Your task to perform on an android device: turn on location history Image 0: 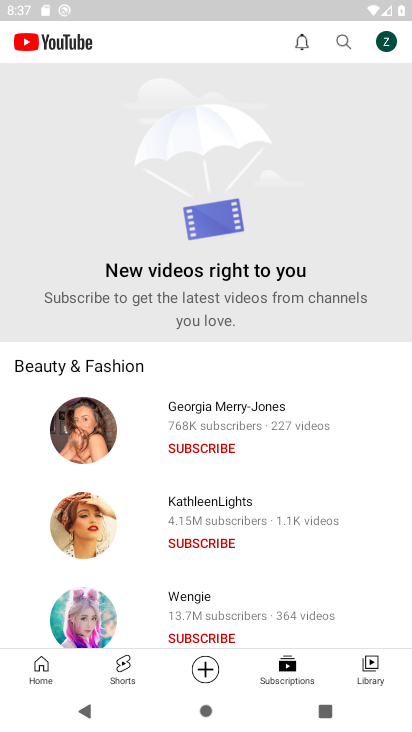
Step 0: press home button
Your task to perform on an android device: turn on location history Image 1: 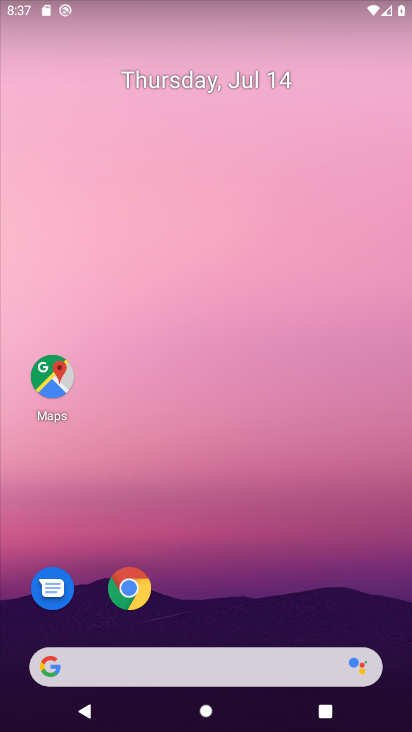
Step 1: drag from (343, 614) to (360, 137)
Your task to perform on an android device: turn on location history Image 2: 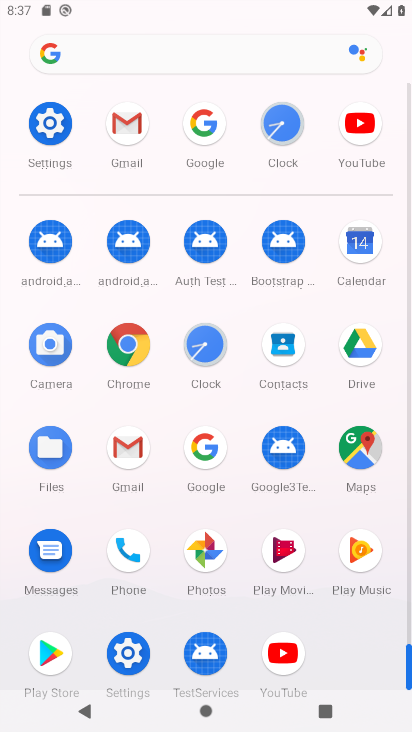
Step 2: click (58, 132)
Your task to perform on an android device: turn on location history Image 3: 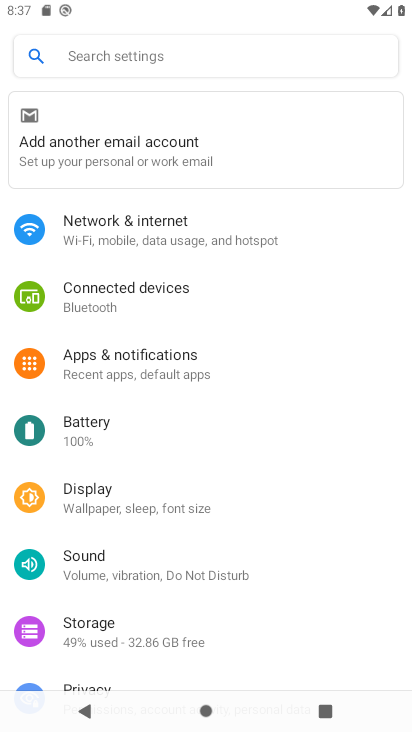
Step 3: drag from (361, 394) to (368, 324)
Your task to perform on an android device: turn on location history Image 4: 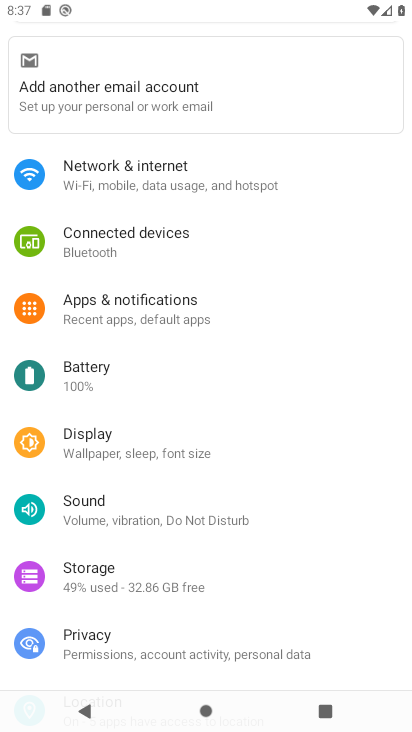
Step 4: drag from (367, 385) to (365, 298)
Your task to perform on an android device: turn on location history Image 5: 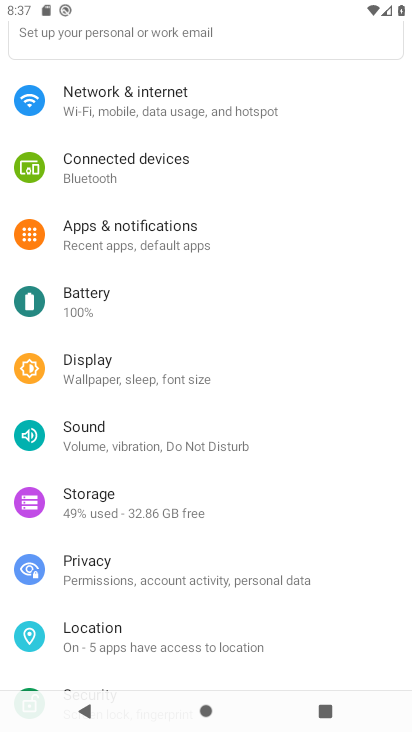
Step 5: drag from (365, 393) to (364, 330)
Your task to perform on an android device: turn on location history Image 6: 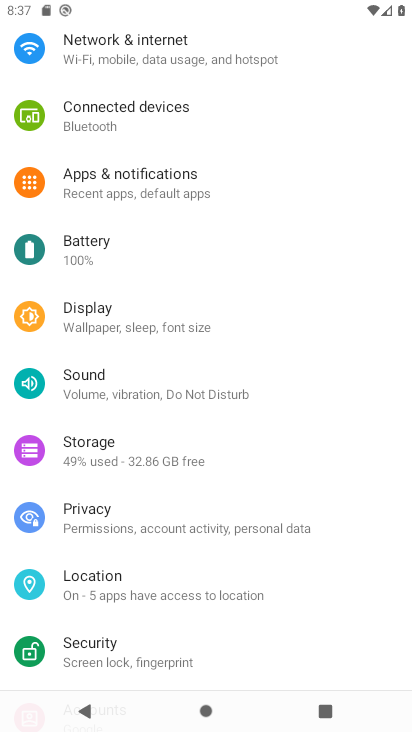
Step 6: drag from (368, 457) to (367, 335)
Your task to perform on an android device: turn on location history Image 7: 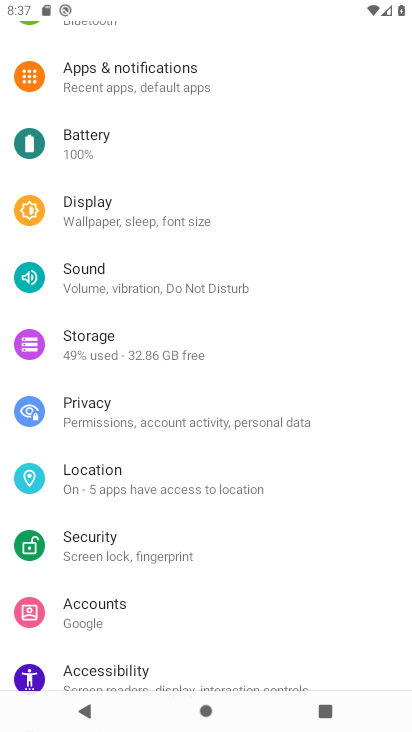
Step 7: drag from (363, 492) to (363, 359)
Your task to perform on an android device: turn on location history Image 8: 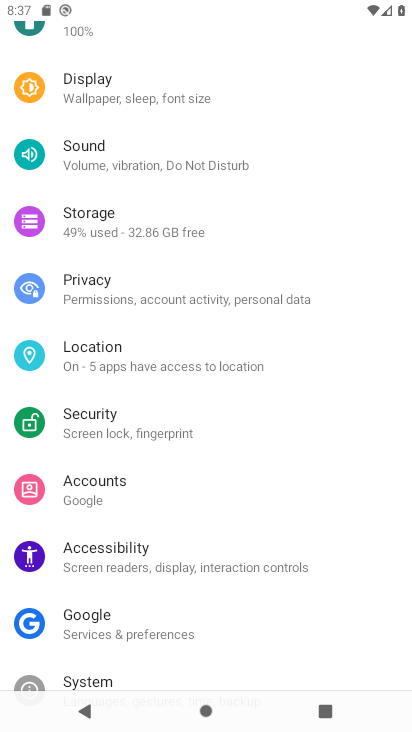
Step 8: click (293, 364)
Your task to perform on an android device: turn on location history Image 9: 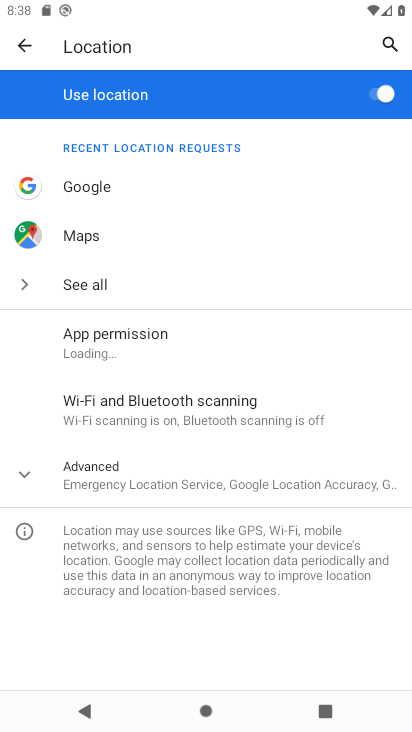
Step 9: click (303, 467)
Your task to perform on an android device: turn on location history Image 10: 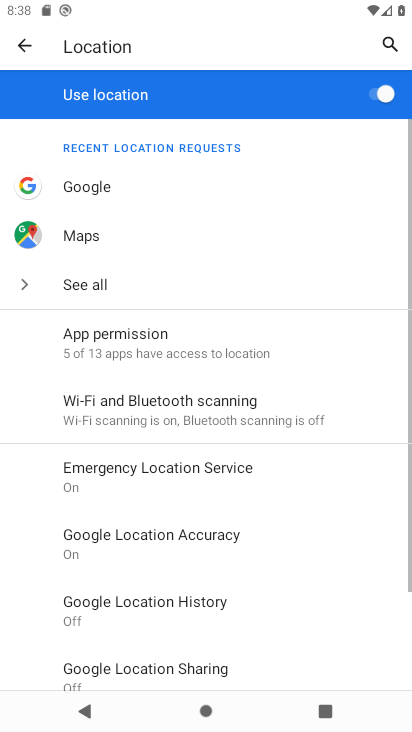
Step 10: click (323, 470)
Your task to perform on an android device: turn on location history Image 11: 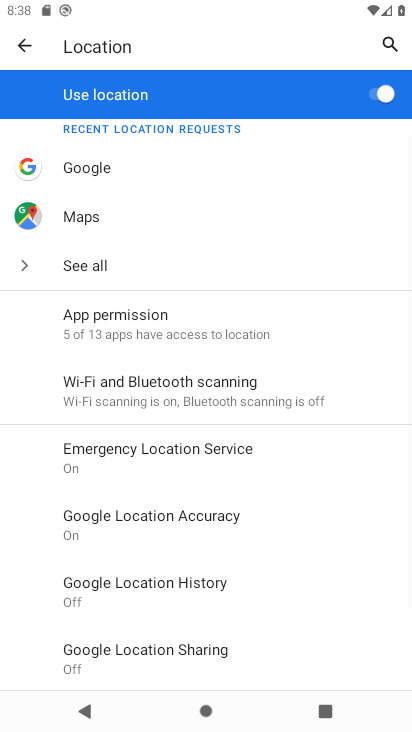
Step 11: drag from (336, 517) to (336, 428)
Your task to perform on an android device: turn on location history Image 12: 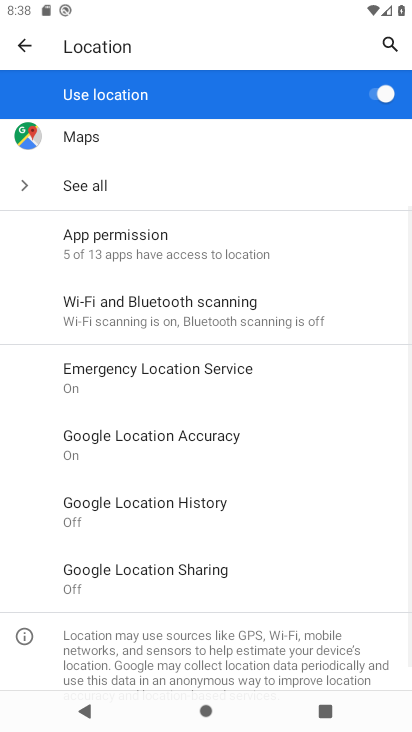
Step 12: drag from (335, 493) to (337, 409)
Your task to perform on an android device: turn on location history Image 13: 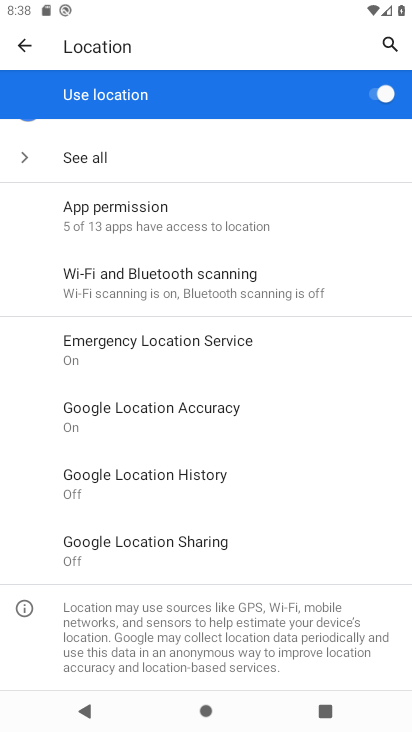
Step 13: click (284, 482)
Your task to perform on an android device: turn on location history Image 14: 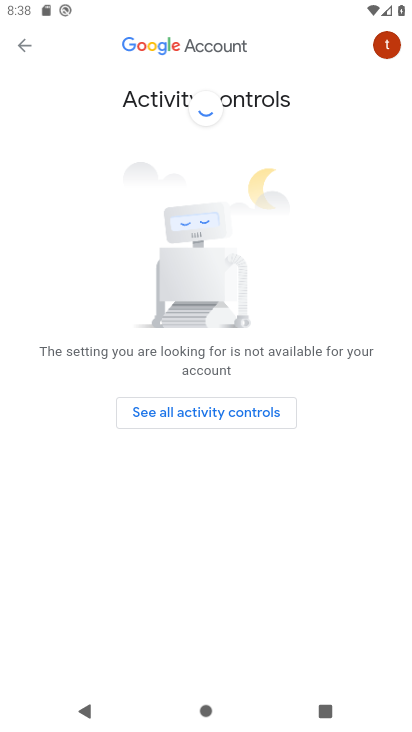
Step 14: click (243, 417)
Your task to perform on an android device: turn on location history Image 15: 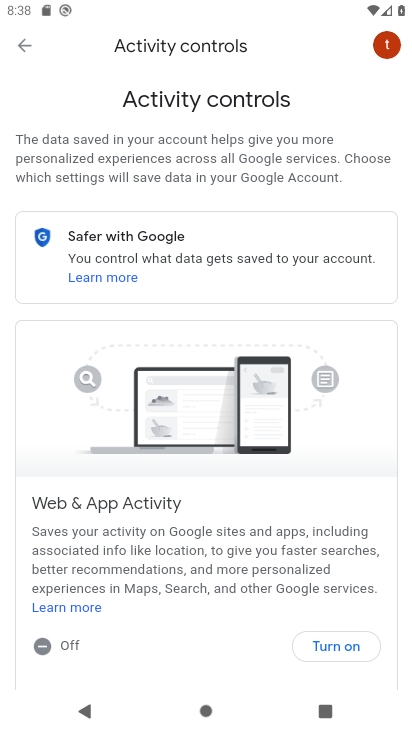
Step 15: click (348, 637)
Your task to perform on an android device: turn on location history Image 16: 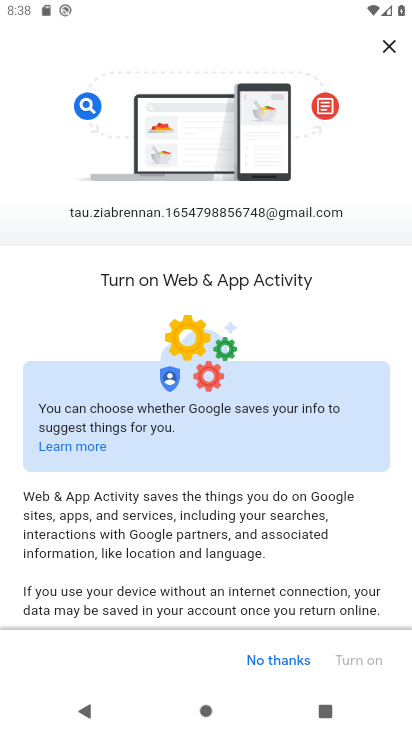
Step 16: drag from (340, 597) to (337, 448)
Your task to perform on an android device: turn on location history Image 17: 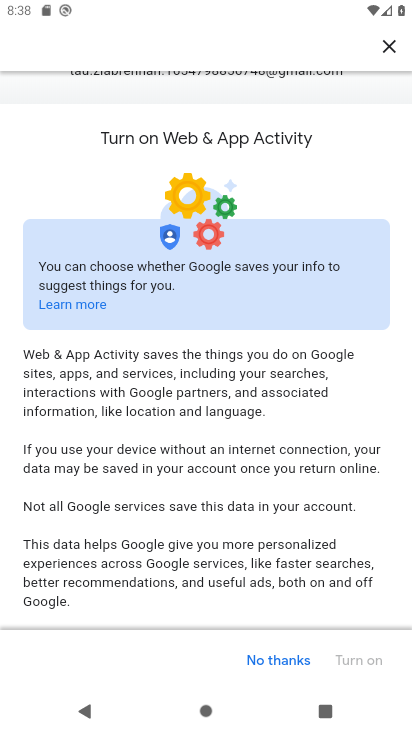
Step 17: drag from (345, 575) to (368, 395)
Your task to perform on an android device: turn on location history Image 18: 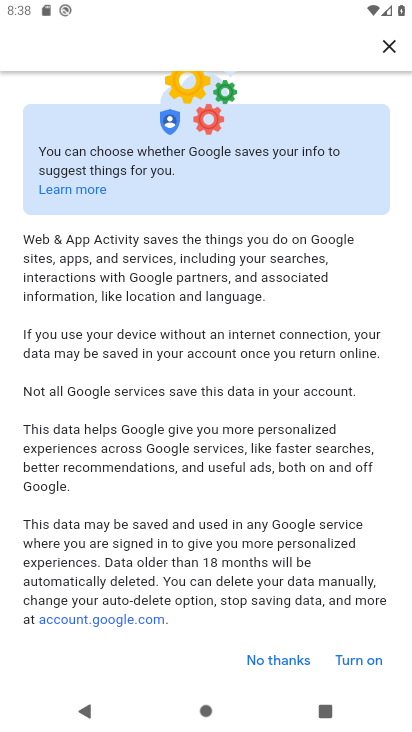
Step 18: click (355, 654)
Your task to perform on an android device: turn on location history Image 19: 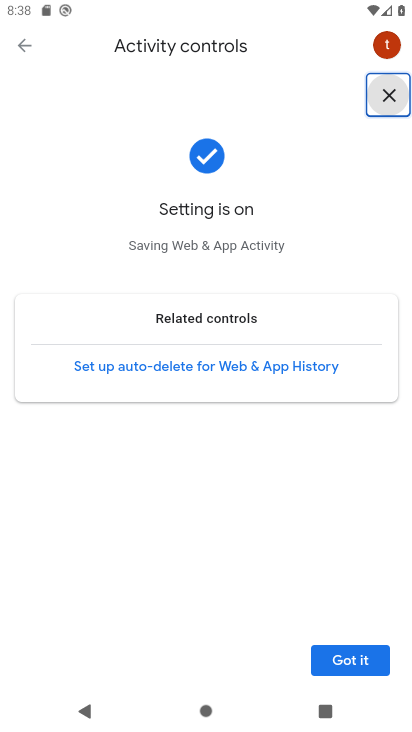
Step 19: task complete